Your task to perform on an android device: Search for a new lawnmower on home depot Image 0: 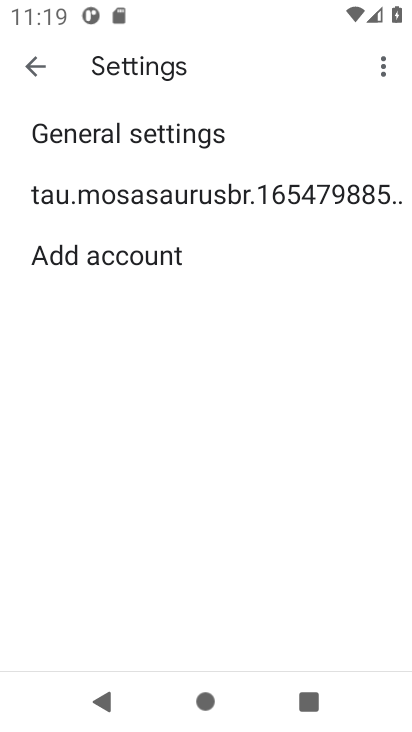
Step 0: press home button
Your task to perform on an android device: Search for a new lawnmower on home depot Image 1: 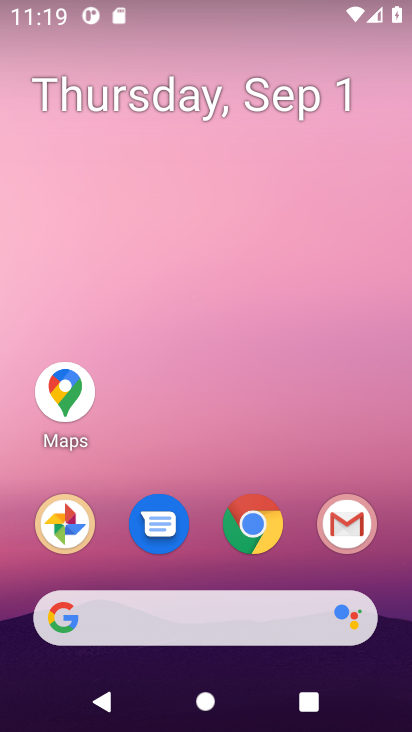
Step 1: click (234, 620)
Your task to perform on an android device: Search for a new lawnmower on home depot Image 2: 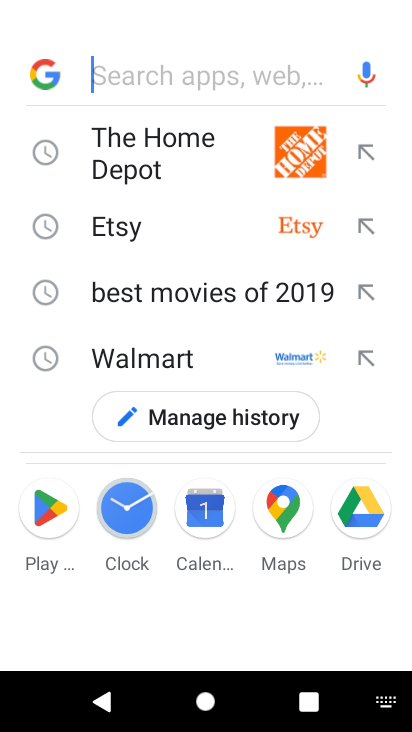
Step 2: click (129, 159)
Your task to perform on an android device: Search for a new lawnmower on home depot Image 3: 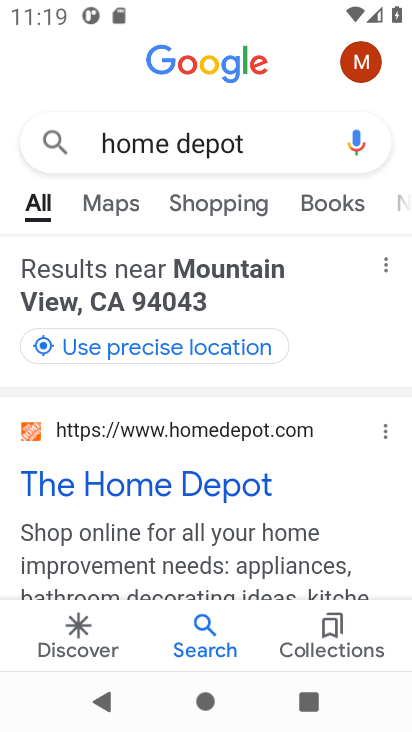
Step 3: click (123, 477)
Your task to perform on an android device: Search for a new lawnmower on home depot Image 4: 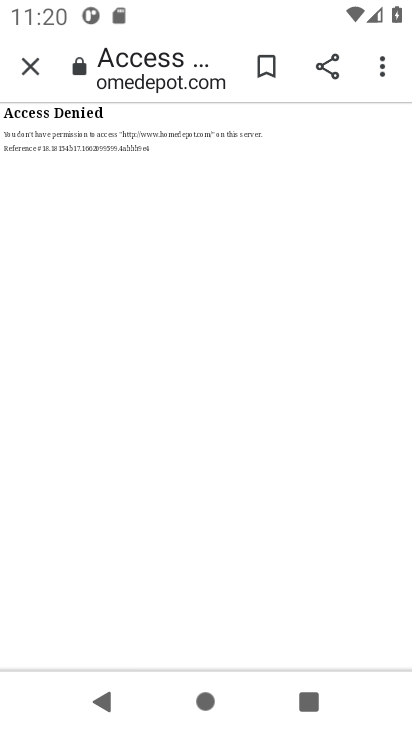
Step 4: task complete